Your task to perform on an android device: check storage Image 0: 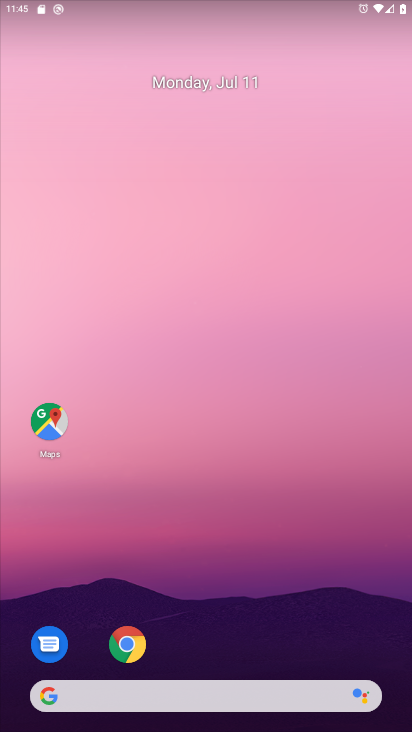
Step 0: drag from (260, 665) to (260, 115)
Your task to perform on an android device: check storage Image 1: 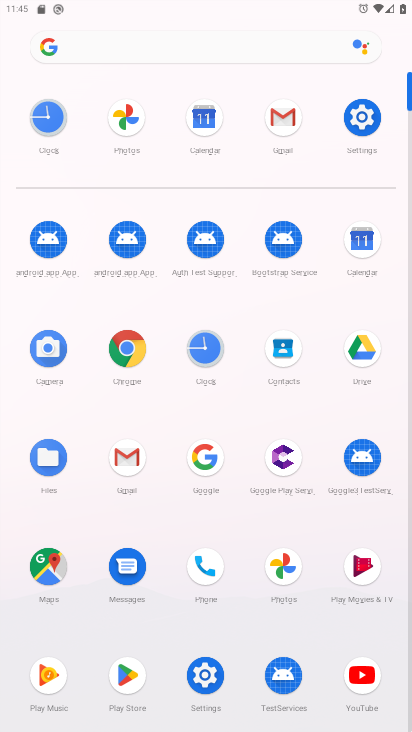
Step 1: click (365, 109)
Your task to perform on an android device: check storage Image 2: 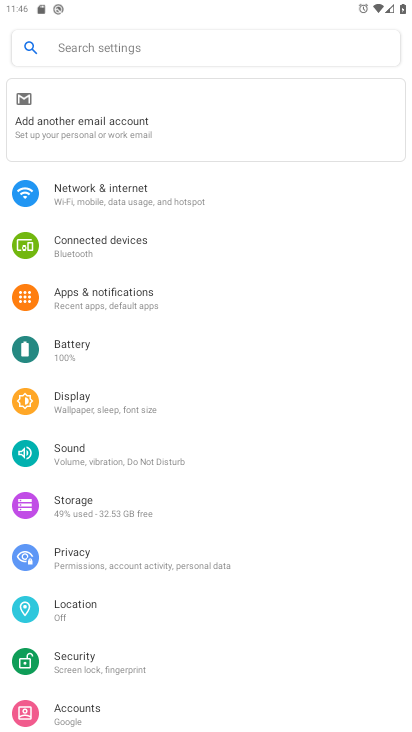
Step 2: click (136, 504)
Your task to perform on an android device: check storage Image 3: 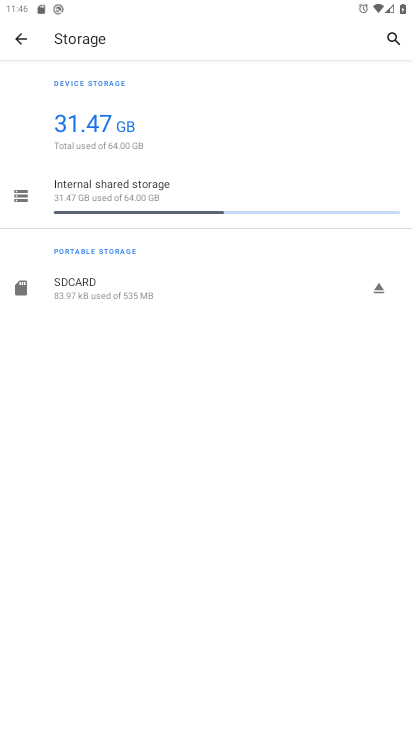
Step 3: task complete